Your task to perform on an android device: Clear the shopping cart on target.com. Search for "acer predator" on target.com, select the first entry, and add it to the cart. Image 0: 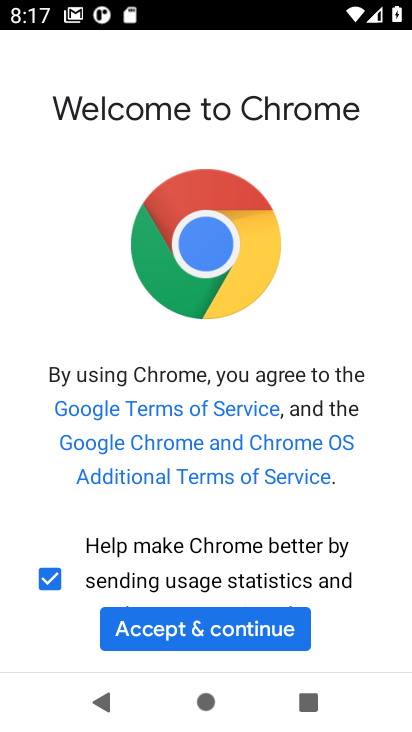
Step 0: press home button
Your task to perform on an android device: Clear the shopping cart on target.com. Search for "acer predator" on target.com, select the first entry, and add it to the cart. Image 1: 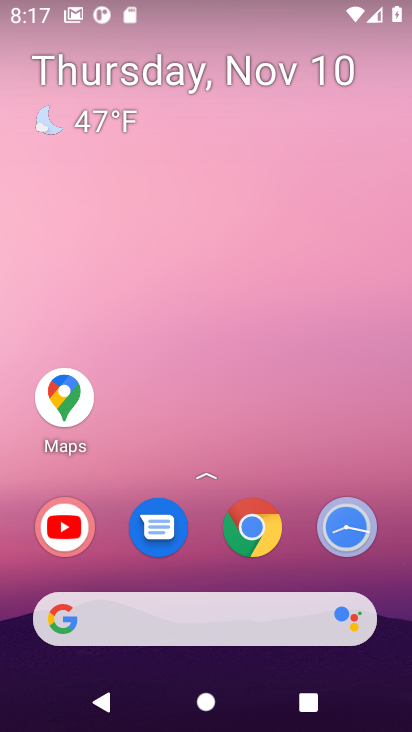
Step 1: drag from (230, 591) to (207, 0)
Your task to perform on an android device: Clear the shopping cart on target.com. Search for "acer predator" on target.com, select the first entry, and add it to the cart. Image 2: 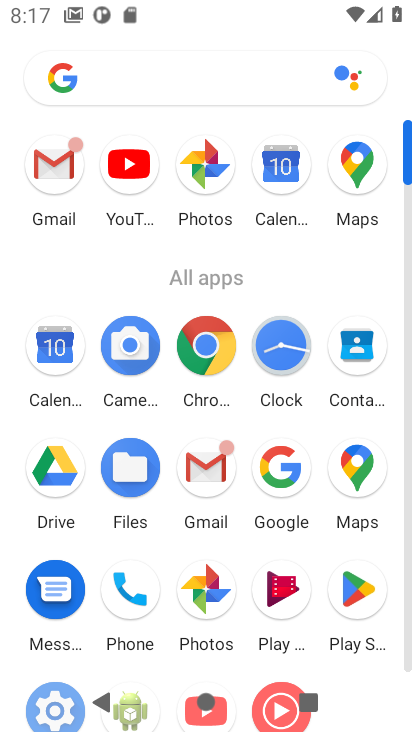
Step 2: click (197, 341)
Your task to perform on an android device: Clear the shopping cart on target.com. Search for "acer predator" on target.com, select the first entry, and add it to the cart. Image 3: 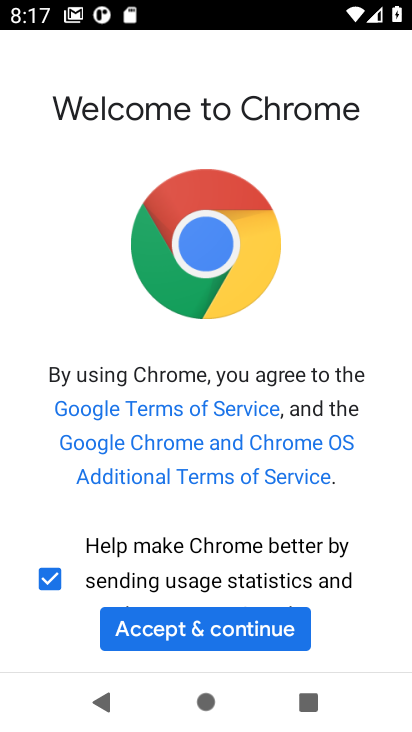
Step 3: click (287, 635)
Your task to perform on an android device: Clear the shopping cart on target.com. Search for "acer predator" on target.com, select the first entry, and add it to the cart. Image 4: 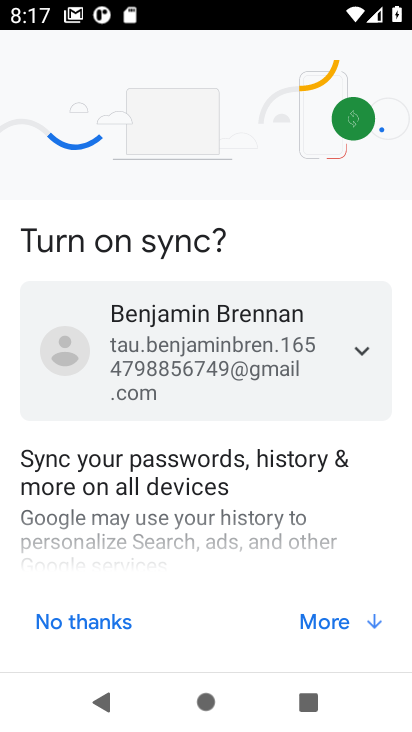
Step 4: click (309, 618)
Your task to perform on an android device: Clear the shopping cart on target.com. Search for "acer predator" on target.com, select the first entry, and add it to the cart. Image 5: 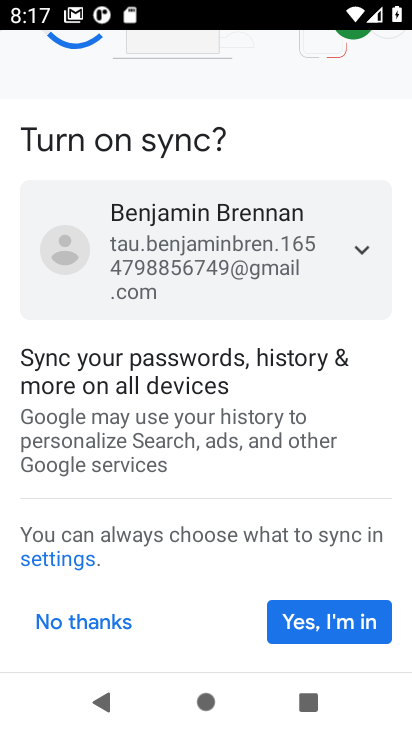
Step 5: click (310, 619)
Your task to perform on an android device: Clear the shopping cart on target.com. Search for "acer predator" on target.com, select the first entry, and add it to the cart. Image 6: 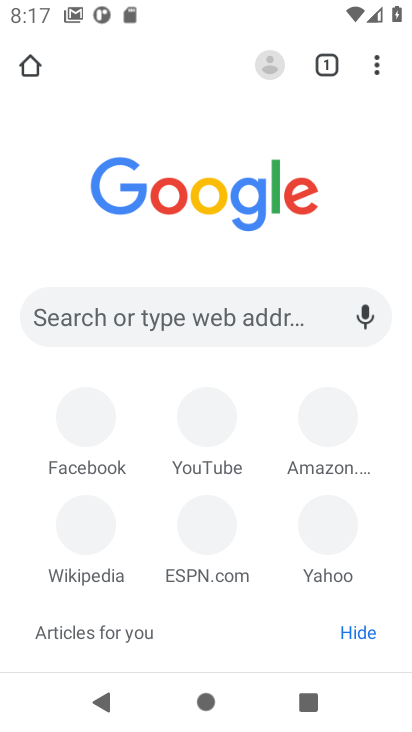
Step 6: click (92, 313)
Your task to perform on an android device: Clear the shopping cart on target.com. Search for "acer predator" on target.com, select the first entry, and add it to the cart. Image 7: 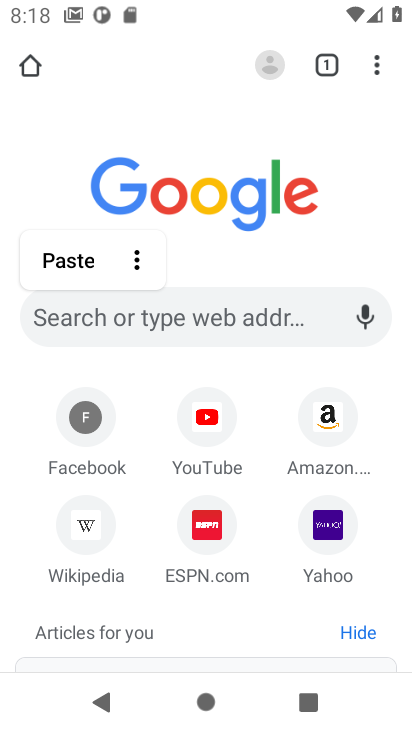
Step 7: click (141, 246)
Your task to perform on an android device: Clear the shopping cart on target.com. Search for "acer predator" on target.com, select the first entry, and add it to the cart. Image 8: 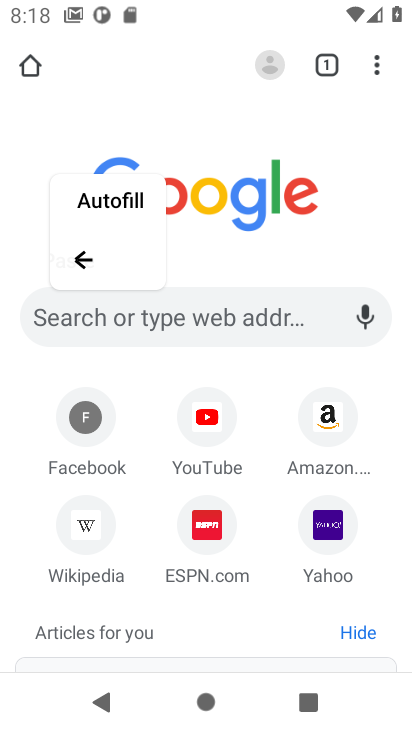
Step 8: click (136, 255)
Your task to perform on an android device: Clear the shopping cart on target.com. Search for "acer predator" on target.com, select the first entry, and add it to the cart. Image 9: 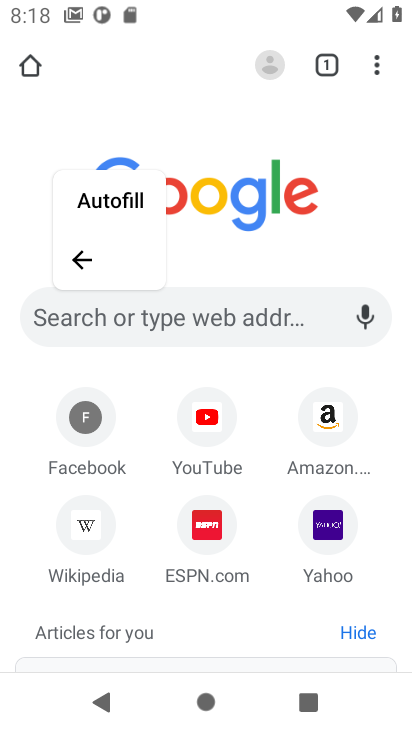
Step 9: click (101, 208)
Your task to perform on an android device: Clear the shopping cart on target.com. Search for "acer predator" on target.com, select the first entry, and add it to the cart. Image 10: 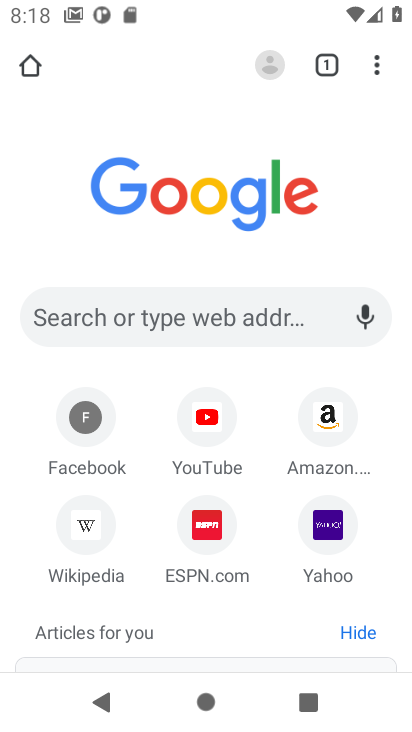
Step 10: click (189, 327)
Your task to perform on an android device: Clear the shopping cart on target.com. Search for "acer predator" on target.com, select the first entry, and add it to the cart. Image 11: 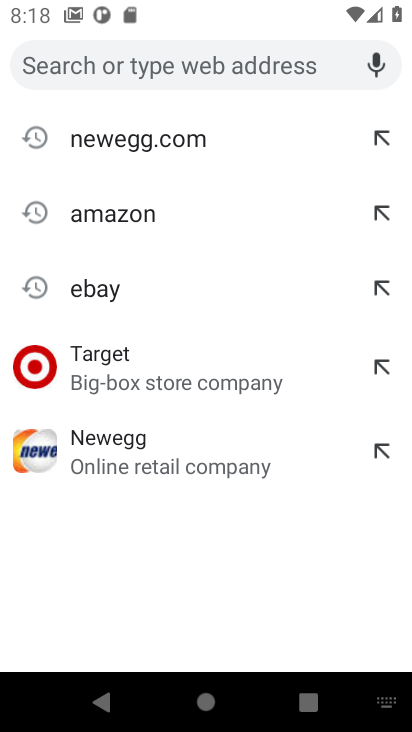
Step 11: type " target.com."
Your task to perform on an android device: Clear the shopping cart on target.com. Search for "acer predator" on target.com, select the first entry, and add it to the cart. Image 12: 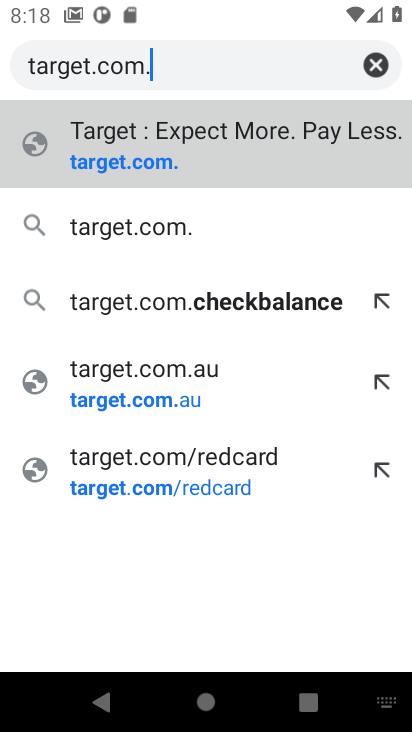
Step 12: press enter
Your task to perform on an android device: Clear the shopping cart on target.com. Search for "acer predator" on target.com, select the first entry, and add it to the cart. Image 13: 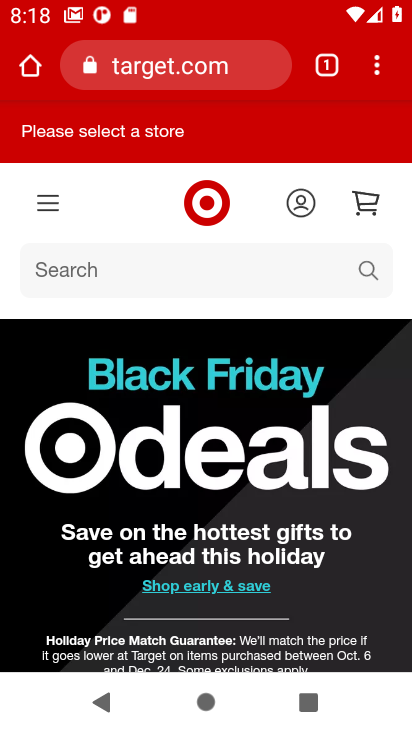
Step 13: click (63, 260)
Your task to perform on an android device: Clear the shopping cart on target.com. Search for "acer predator" on target.com, select the first entry, and add it to the cart. Image 14: 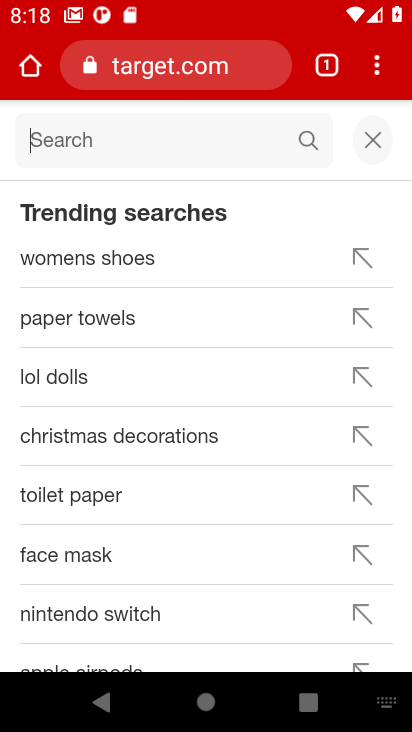
Step 14: type "acer predator"
Your task to perform on an android device: Clear the shopping cart on target.com. Search for "acer predator" on target.com, select the first entry, and add it to the cart. Image 15: 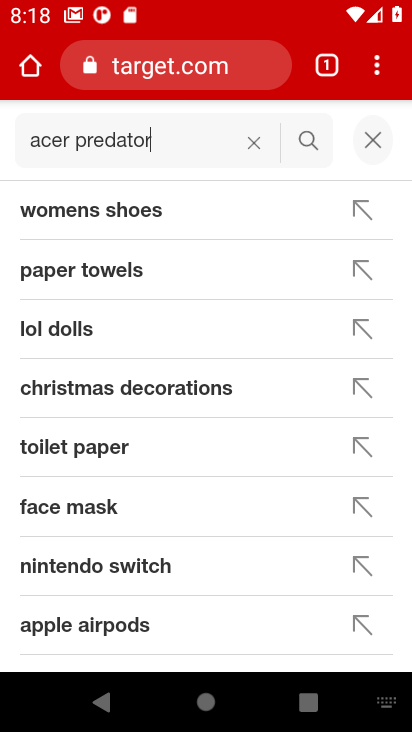
Step 15: press enter
Your task to perform on an android device: Clear the shopping cart on target.com. Search for "acer predator" on target.com, select the first entry, and add it to the cart. Image 16: 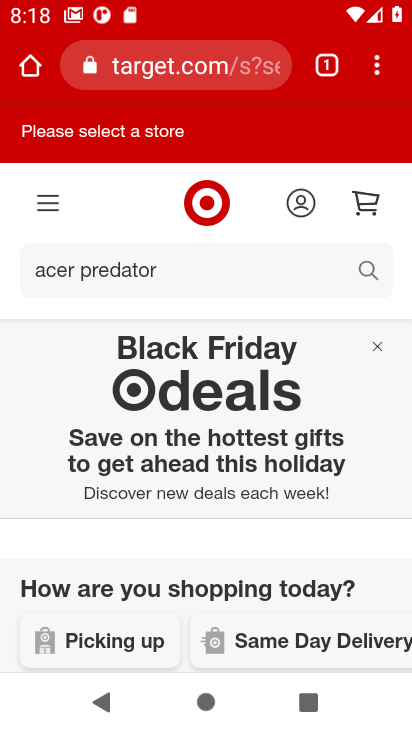
Step 16: drag from (252, 508) to (241, 245)
Your task to perform on an android device: Clear the shopping cart on target.com. Search for "acer predator" on target.com, select the first entry, and add it to the cart. Image 17: 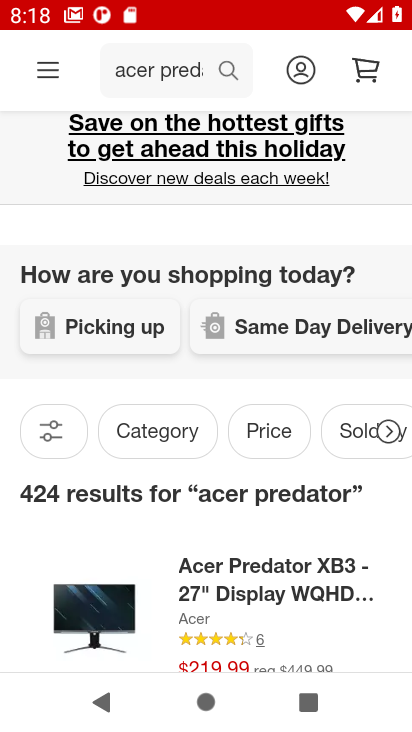
Step 17: drag from (172, 589) to (198, 221)
Your task to perform on an android device: Clear the shopping cart on target.com. Search for "acer predator" on target.com, select the first entry, and add it to the cart. Image 18: 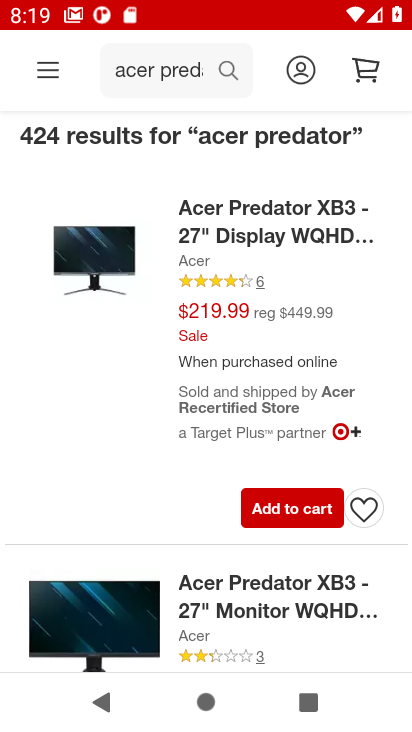
Step 18: click (220, 230)
Your task to perform on an android device: Clear the shopping cart on target.com. Search for "acer predator" on target.com, select the first entry, and add it to the cart. Image 19: 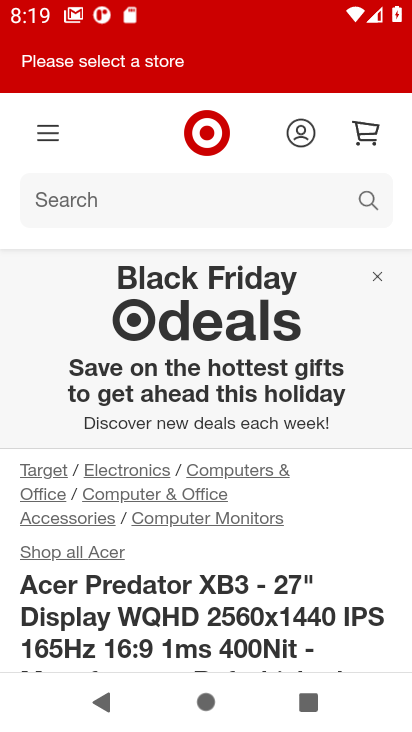
Step 19: drag from (199, 522) to (192, 190)
Your task to perform on an android device: Clear the shopping cart on target.com. Search for "acer predator" on target.com, select the first entry, and add it to the cart. Image 20: 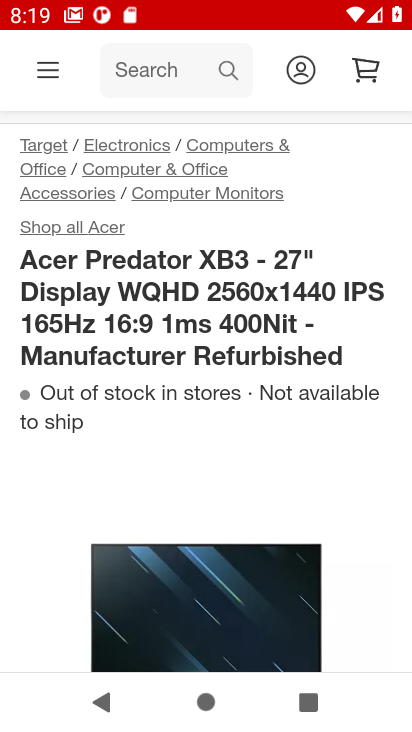
Step 20: drag from (212, 489) to (222, 251)
Your task to perform on an android device: Clear the shopping cart on target.com. Search for "acer predator" on target.com, select the first entry, and add it to the cart. Image 21: 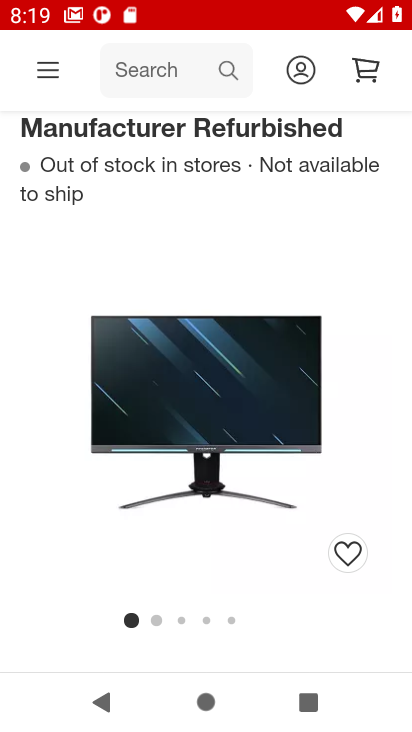
Step 21: drag from (256, 584) to (262, 252)
Your task to perform on an android device: Clear the shopping cart on target.com. Search for "acer predator" on target.com, select the first entry, and add it to the cart. Image 22: 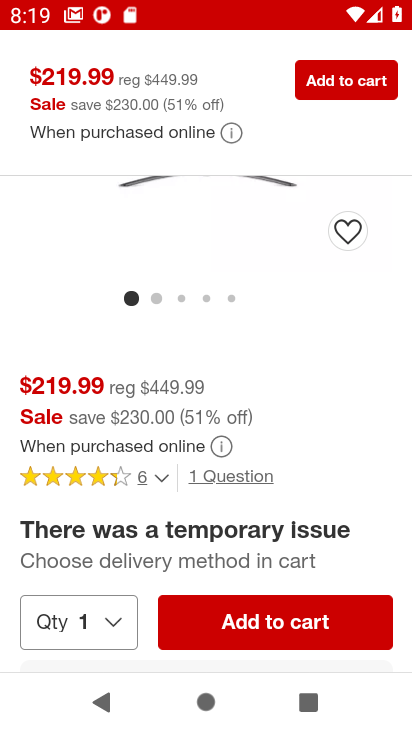
Step 22: click (242, 625)
Your task to perform on an android device: Clear the shopping cart on target.com. Search for "acer predator" on target.com, select the first entry, and add it to the cart. Image 23: 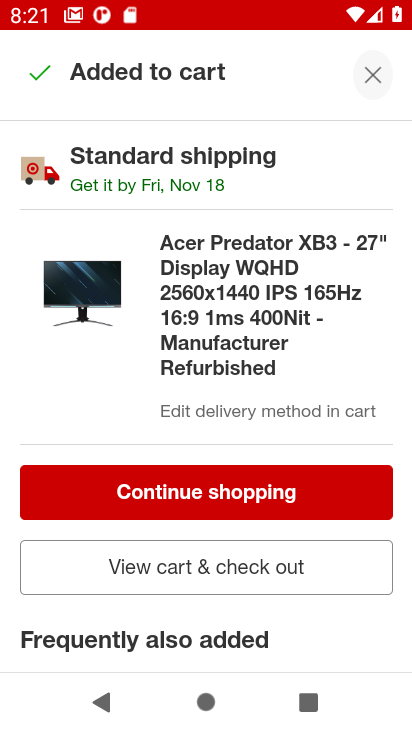
Step 23: task complete